Your task to perform on an android device: Open Maps and search for coffee Image 0: 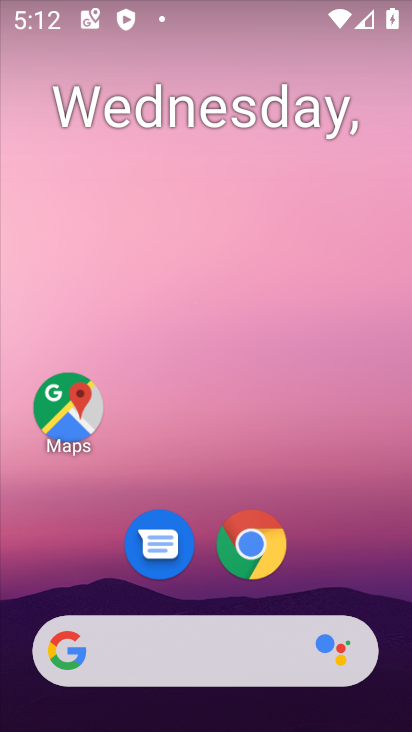
Step 0: click (79, 404)
Your task to perform on an android device: Open Maps and search for coffee Image 1: 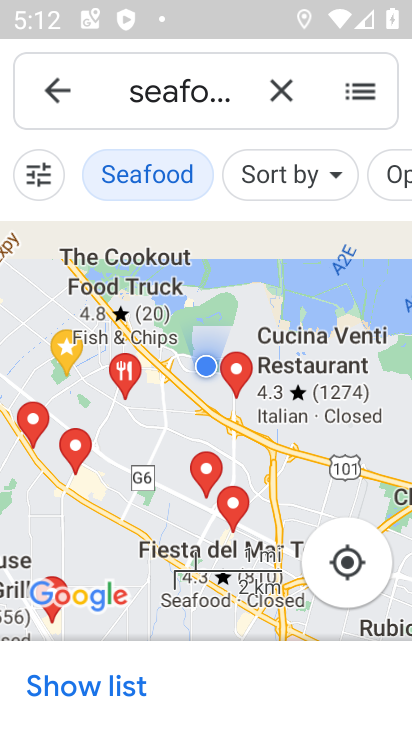
Step 1: click (274, 89)
Your task to perform on an android device: Open Maps and search for coffee Image 2: 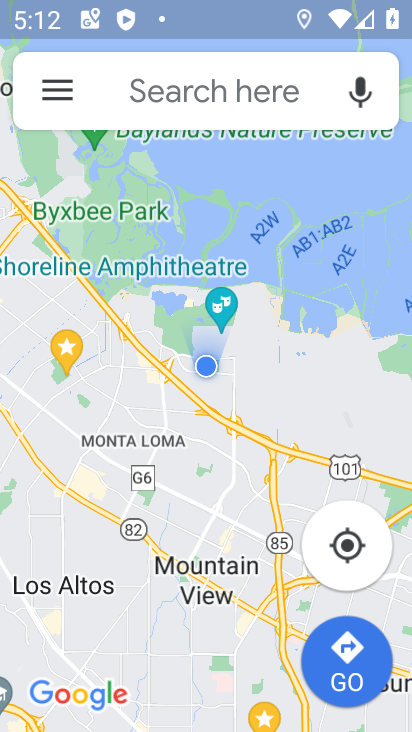
Step 2: type " coffee"
Your task to perform on an android device: Open Maps and search for coffee Image 3: 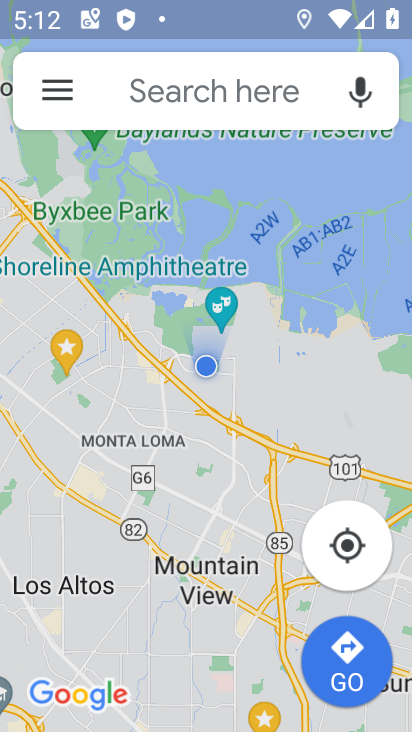
Step 3: click (115, 79)
Your task to perform on an android device: Open Maps and search for coffee Image 4: 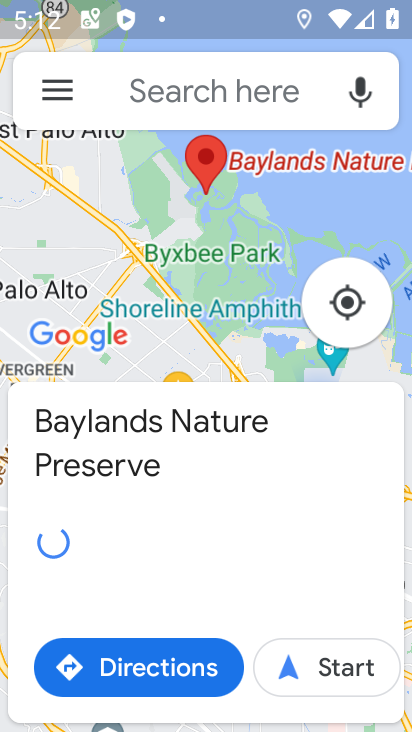
Step 4: click (97, 88)
Your task to perform on an android device: Open Maps and search for coffee Image 5: 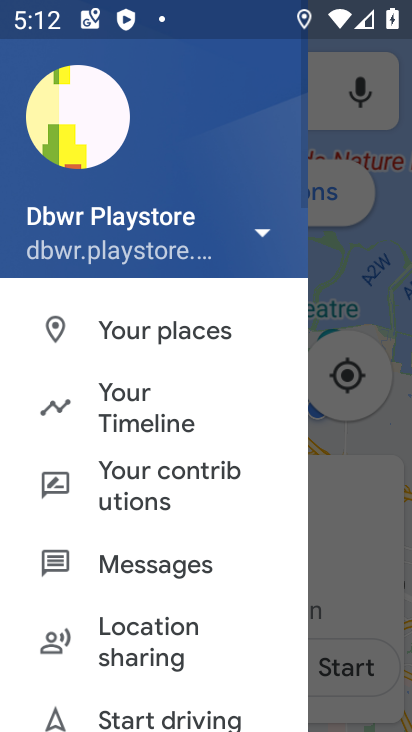
Step 5: press back button
Your task to perform on an android device: Open Maps and search for coffee Image 6: 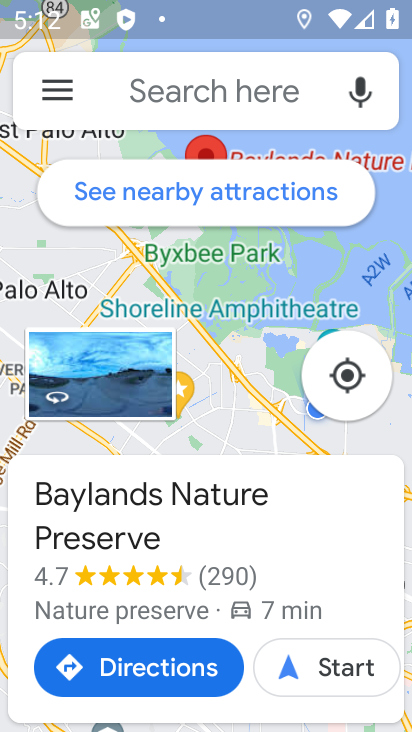
Step 6: click (139, 96)
Your task to perform on an android device: Open Maps and search for coffee Image 7: 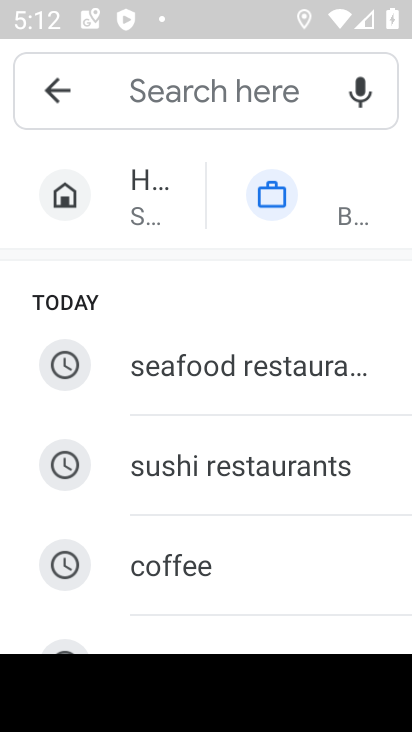
Step 7: type " coffee"
Your task to perform on an android device: Open Maps and search for coffee Image 8: 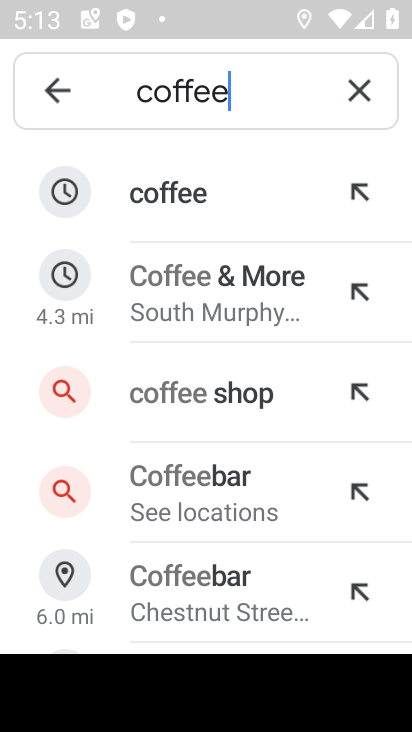
Step 8: click (125, 196)
Your task to perform on an android device: Open Maps and search for coffee Image 9: 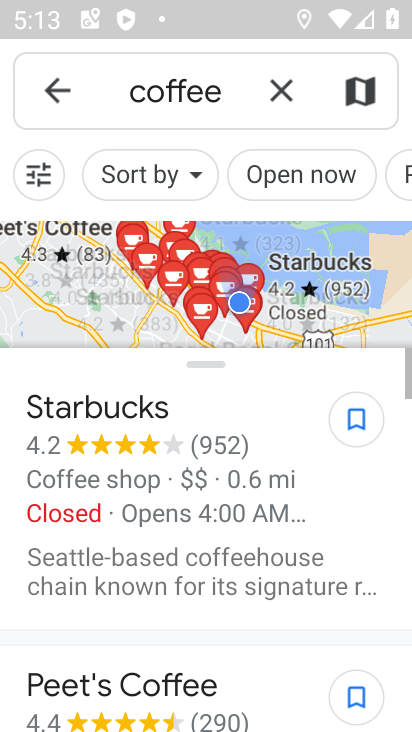
Step 9: task complete